Your task to perform on an android device: set the timer Image 0: 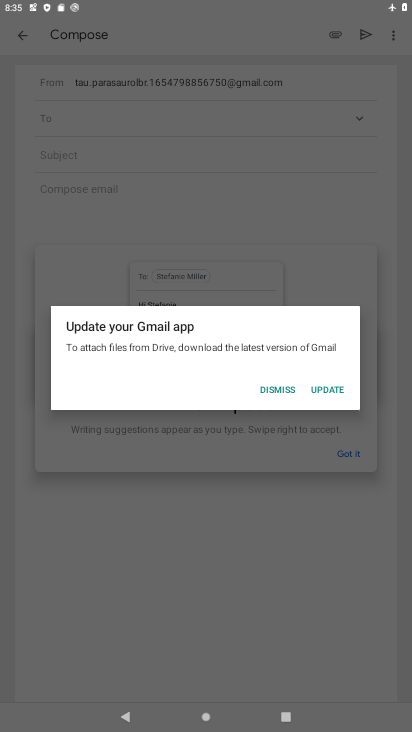
Step 0: press home button
Your task to perform on an android device: set the timer Image 1: 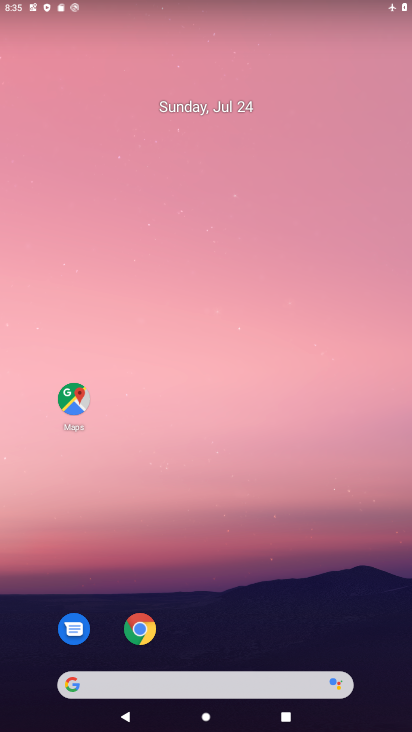
Step 1: drag from (209, 663) to (195, 21)
Your task to perform on an android device: set the timer Image 2: 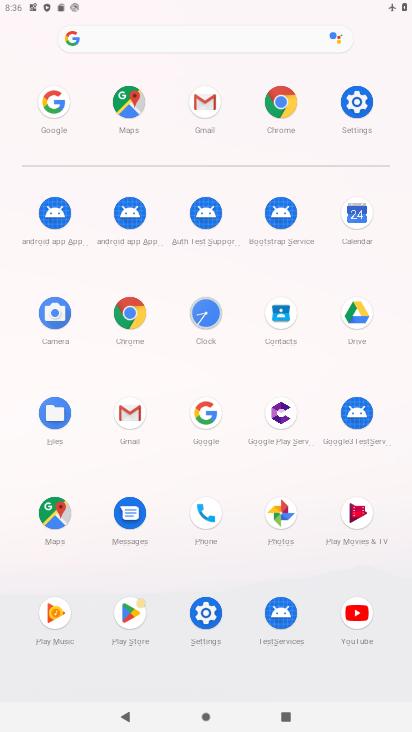
Step 2: click (220, 333)
Your task to perform on an android device: set the timer Image 3: 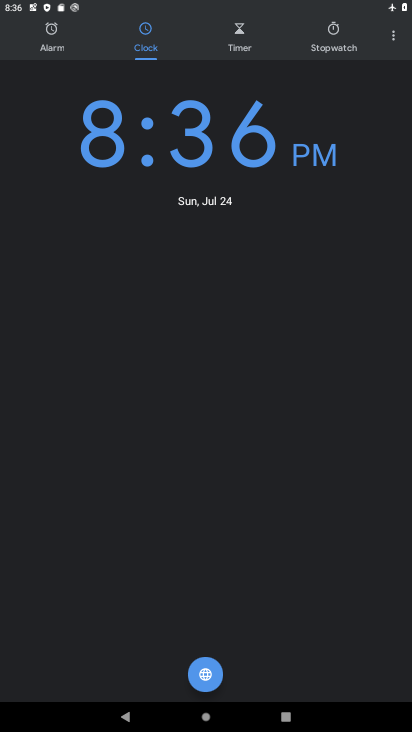
Step 3: click (239, 48)
Your task to perform on an android device: set the timer Image 4: 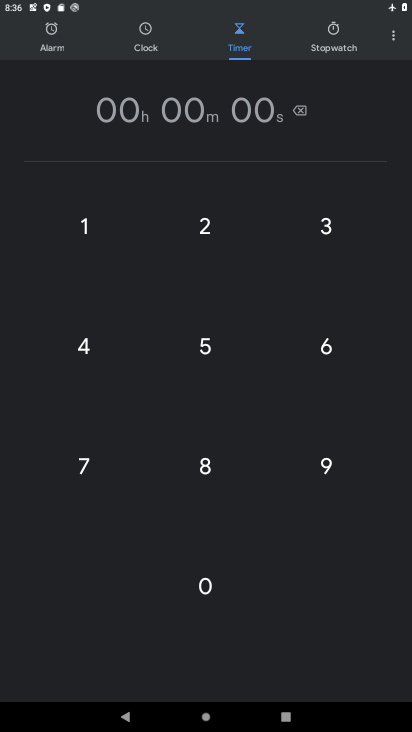
Step 4: click (221, 232)
Your task to perform on an android device: set the timer Image 5: 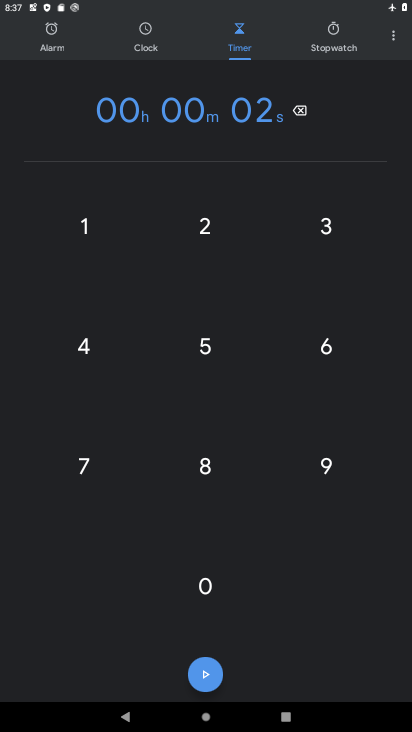
Step 5: click (197, 675)
Your task to perform on an android device: set the timer Image 6: 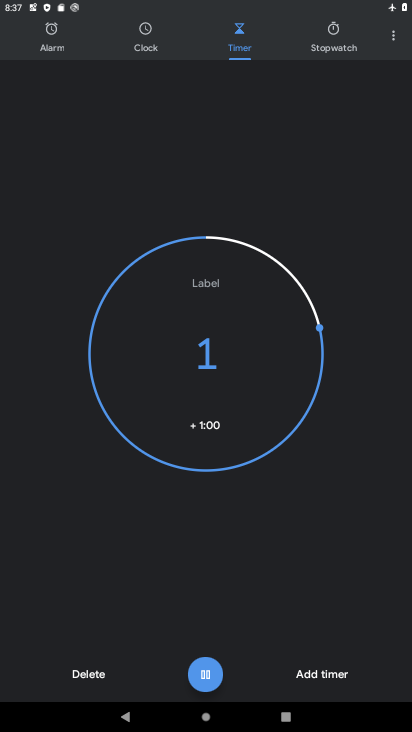
Step 6: task complete